Your task to perform on an android device: Go to Reddit.com Image 0: 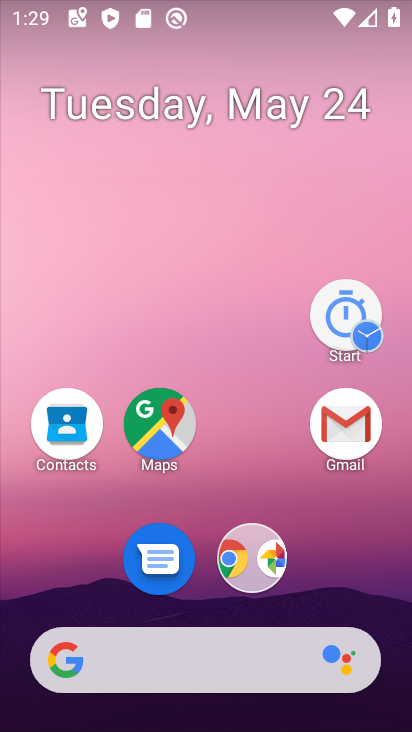
Step 0: drag from (182, 268) to (112, 125)
Your task to perform on an android device: Go to Reddit.com Image 1: 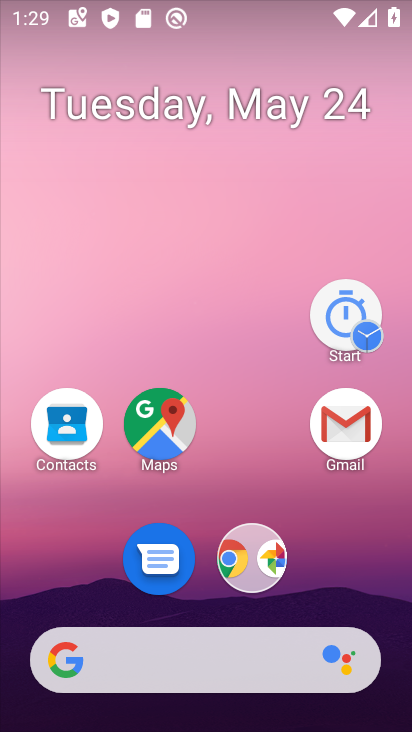
Step 1: click (165, 71)
Your task to perform on an android device: Go to Reddit.com Image 2: 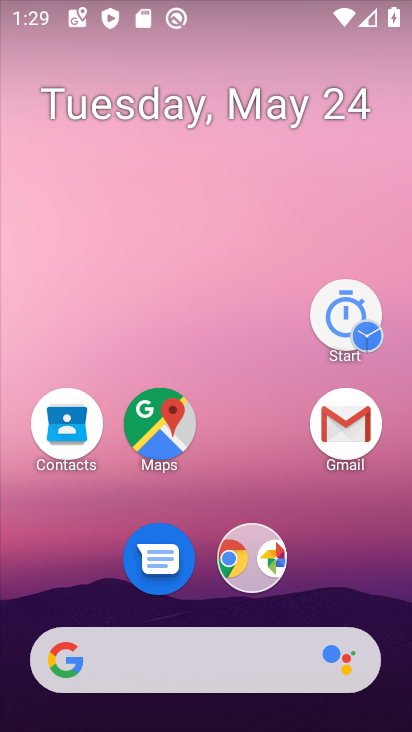
Step 2: click (224, 143)
Your task to perform on an android device: Go to Reddit.com Image 3: 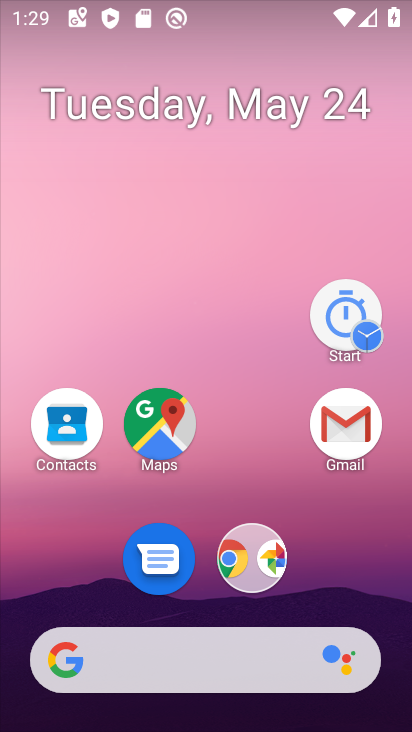
Step 3: drag from (279, 520) to (199, 53)
Your task to perform on an android device: Go to Reddit.com Image 4: 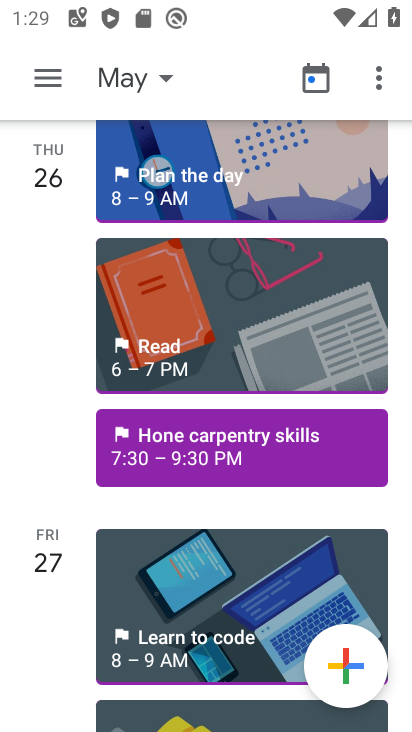
Step 4: press back button
Your task to perform on an android device: Go to Reddit.com Image 5: 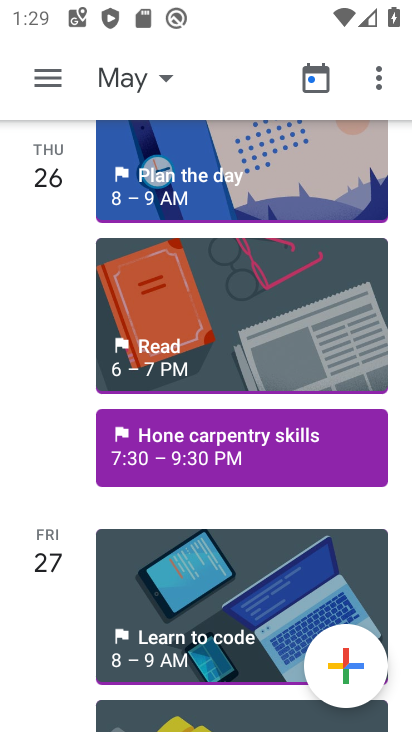
Step 5: press back button
Your task to perform on an android device: Go to Reddit.com Image 6: 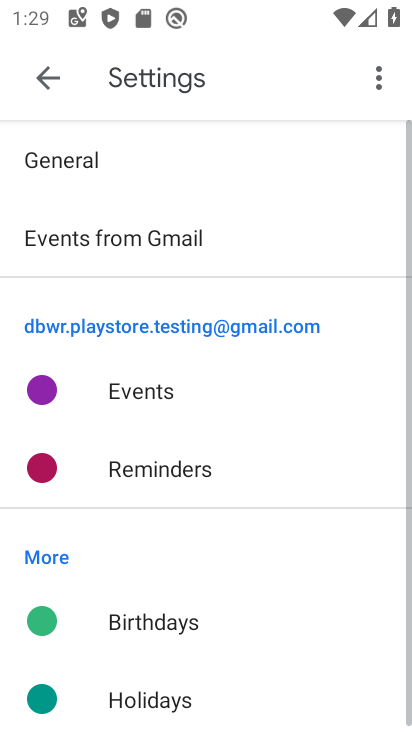
Step 6: press back button
Your task to perform on an android device: Go to Reddit.com Image 7: 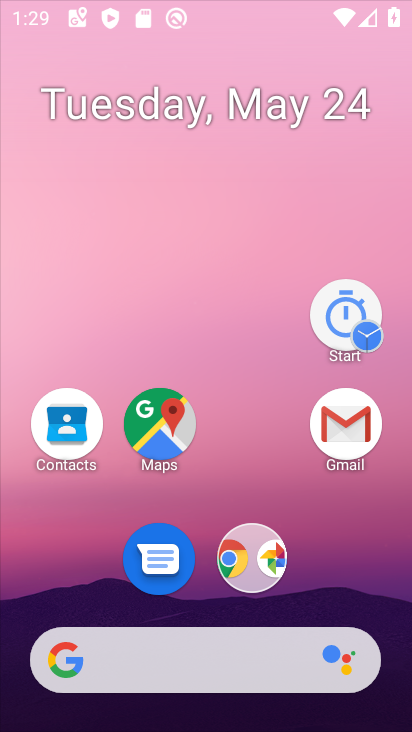
Step 7: press back button
Your task to perform on an android device: Go to Reddit.com Image 8: 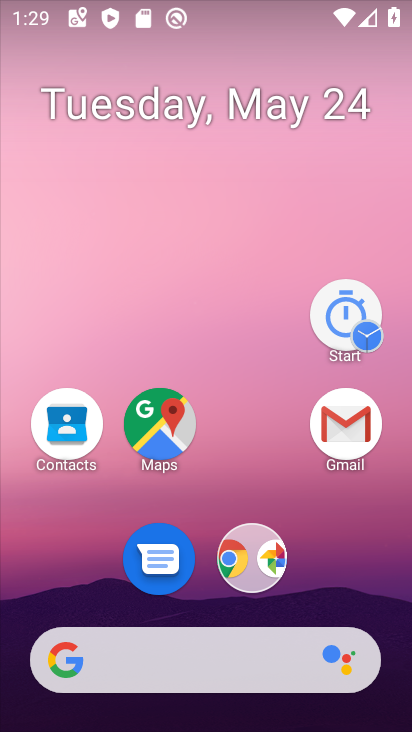
Step 8: drag from (362, 618) to (190, 143)
Your task to perform on an android device: Go to Reddit.com Image 9: 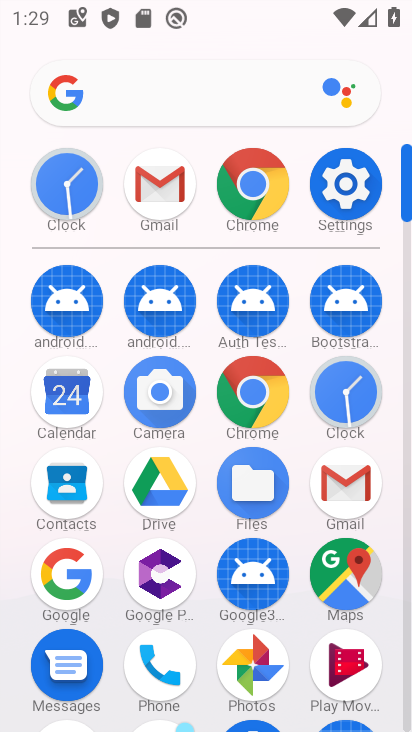
Step 9: drag from (257, 485) to (157, 187)
Your task to perform on an android device: Go to Reddit.com Image 10: 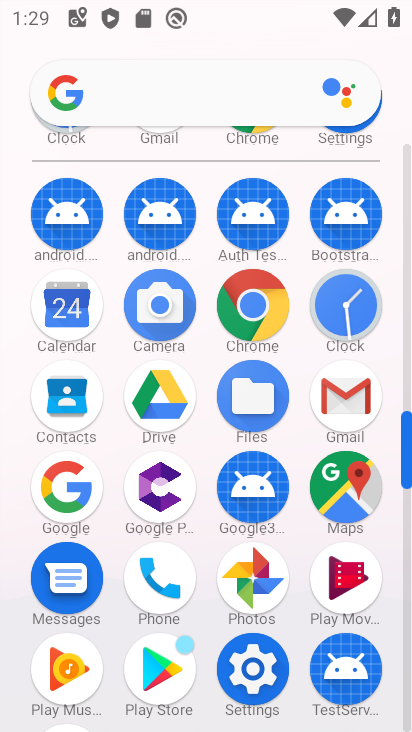
Step 10: click (240, 319)
Your task to perform on an android device: Go to Reddit.com Image 11: 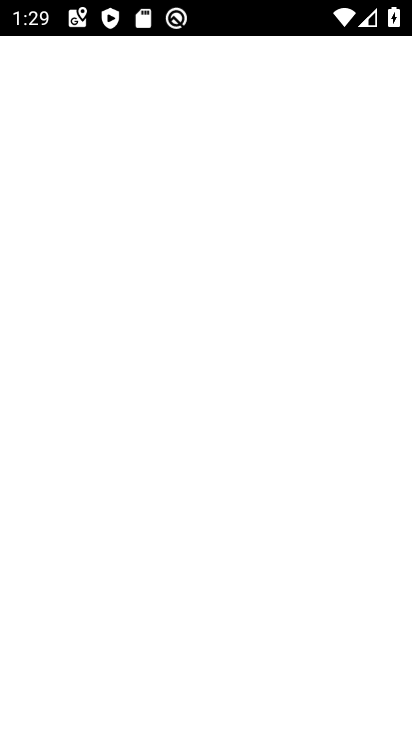
Step 11: click (244, 306)
Your task to perform on an android device: Go to Reddit.com Image 12: 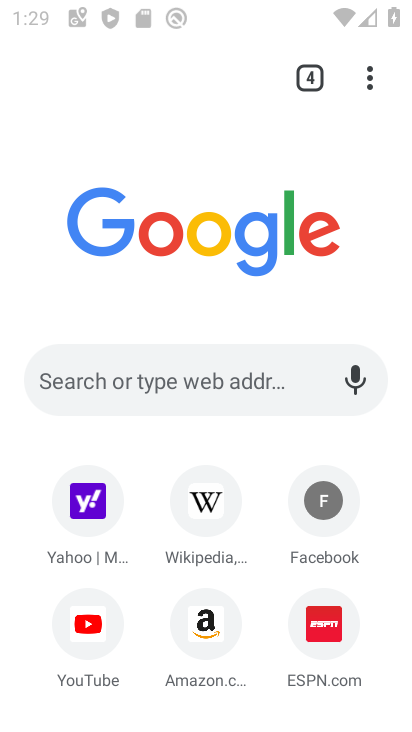
Step 12: click (244, 306)
Your task to perform on an android device: Go to Reddit.com Image 13: 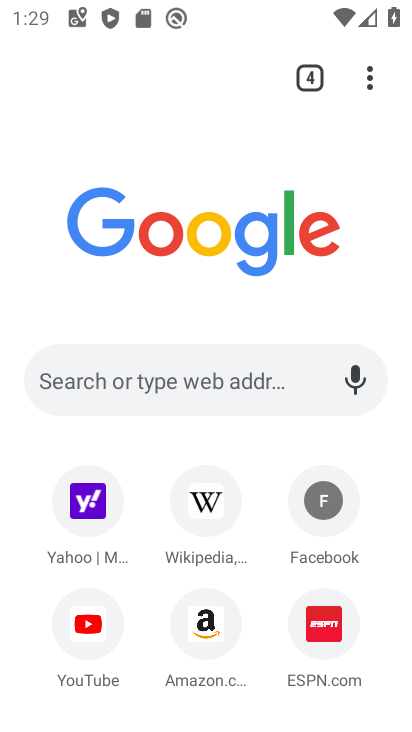
Step 13: click (247, 305)
Your task to perform on an android device: Go to Reddit.com Image 14: 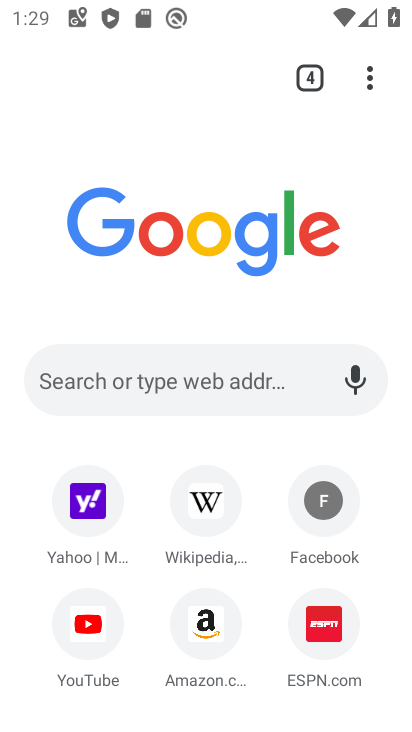
Step 14: click (247, 305)
Your task to perform on an android device: Go to Reddit.com Image 15: 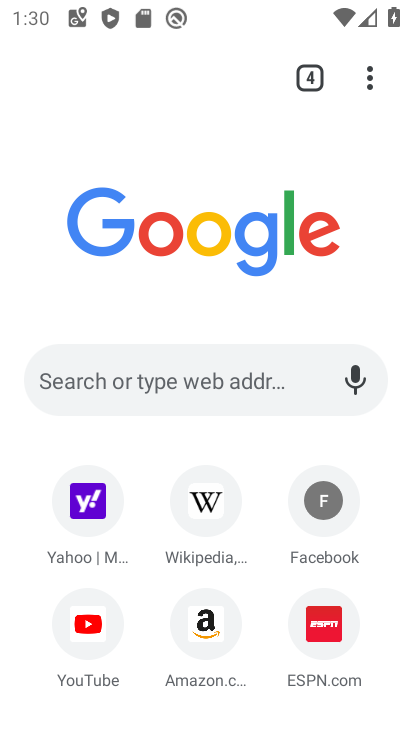
Step 15: click (82, 373)
Your task to perform on an android device: Go to Reddit.com Image 16: 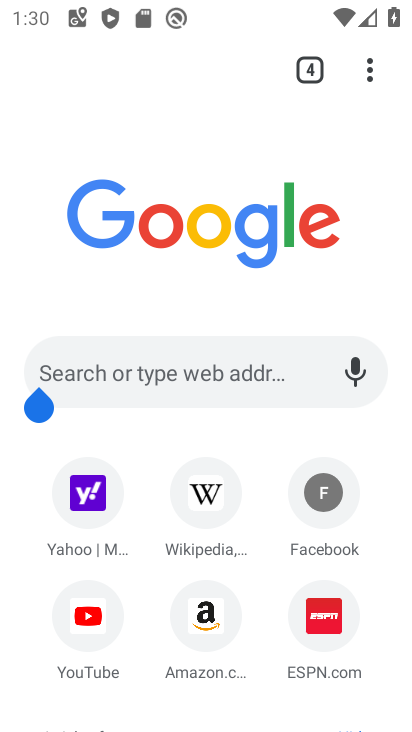
Step 16: click (83, 382)
Your task to perform on an android device: Go to Reddit.com Image 17: 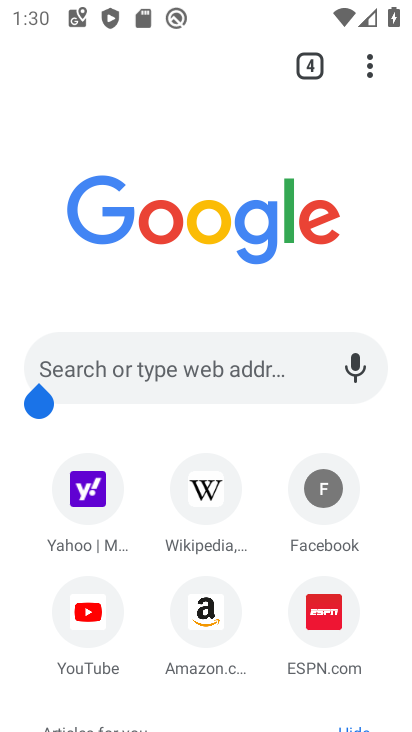
Step 17: click (80, 375)
Your task to perform on an android device: Go to Reddit.com Image 18: 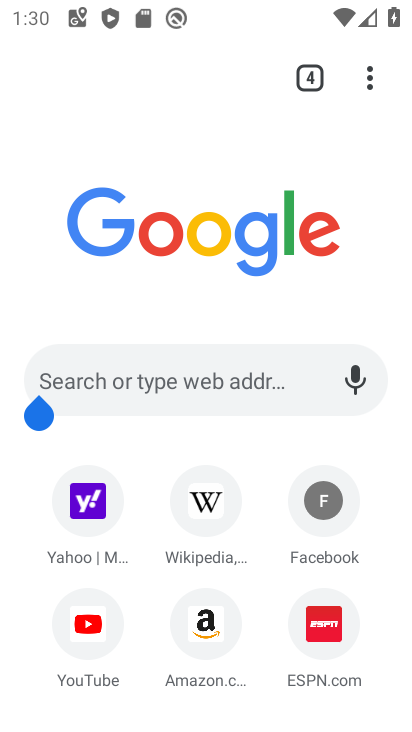
Step 18: click (55, 382)
Your task to perform on an android device: Go to Reddit.com Image 19: 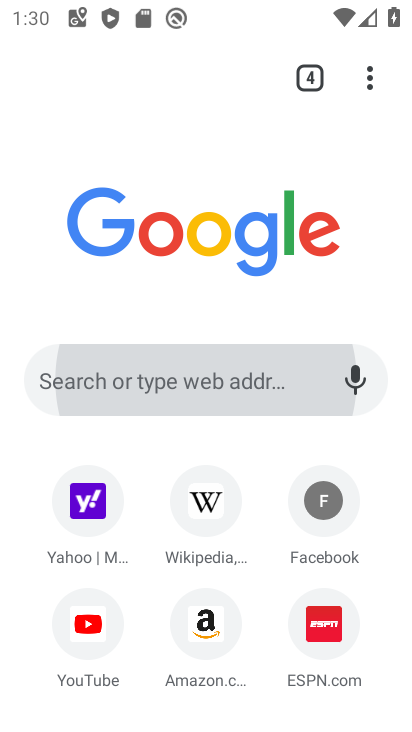
Step 19: click (56, 381)
Your task to perform on an android device: Go to Reddit.com Image 20: 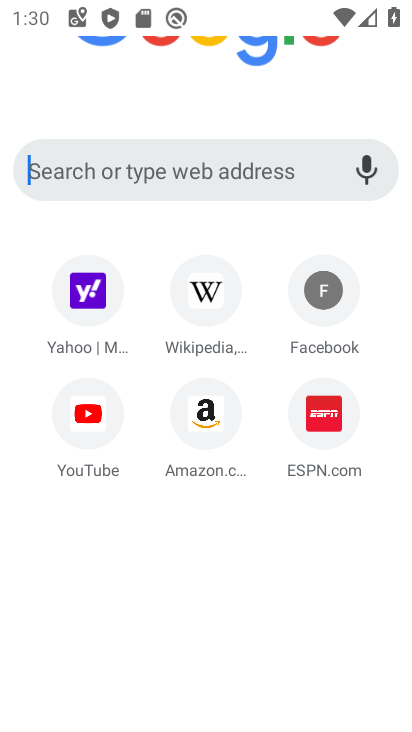
Step 20: click (57, 380)
Your task to perform on an android device: Go to Reddit.com Image 21: 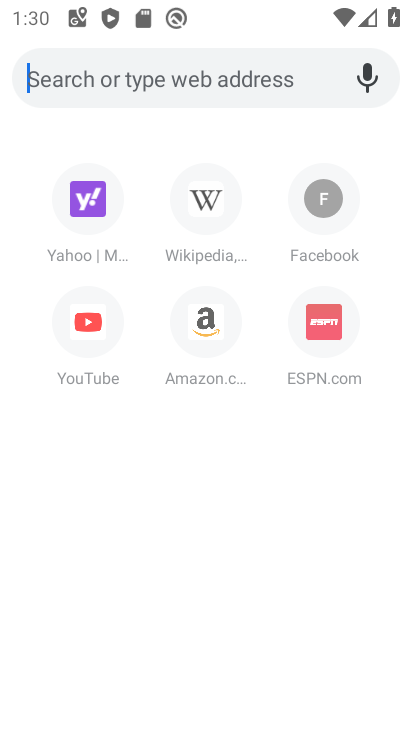
Step 21: click (58, 381)
Your task to perform on an android device: Go to Reddit.com Image 22: 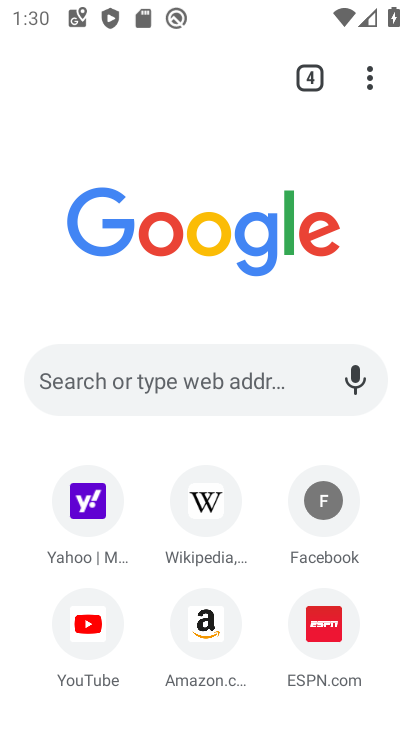
Step 22: click (58, 381)
Your task to perform on an android device: Go to Reddit.com Image 23: 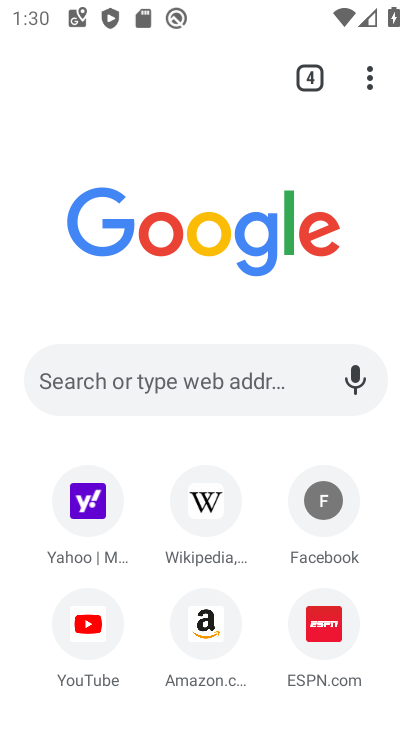
Step 23: click (58, 381)
Your task to perform on an android device: Go to Reddit.com Image 24: 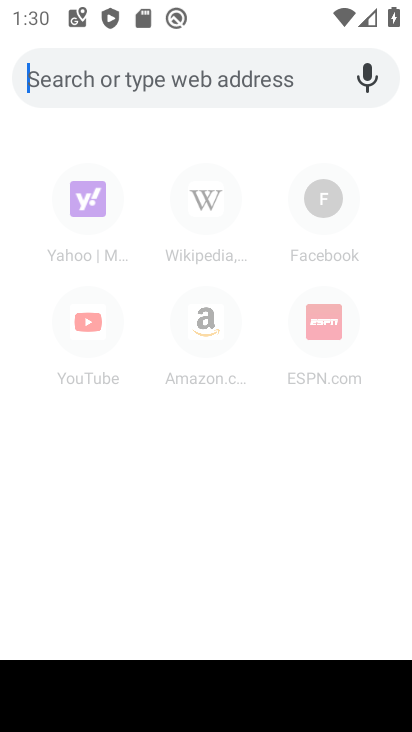
Step 24: type "reddit.com"
Your task to perform on an android device: Go to Reddit.com Image 25: 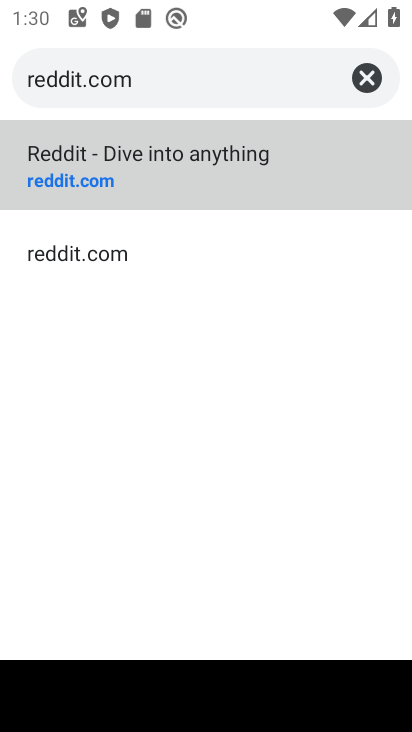
Step 25: click (66, 178)
Your task to perform on an android device: Go to Reddit.com Image 26: 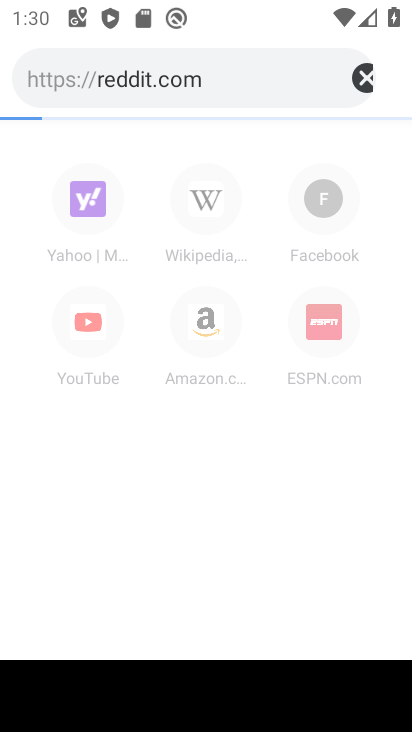
Step 26: click (66, 177)
Your task to perform on an android device: Go to Reddit.com Image 27: 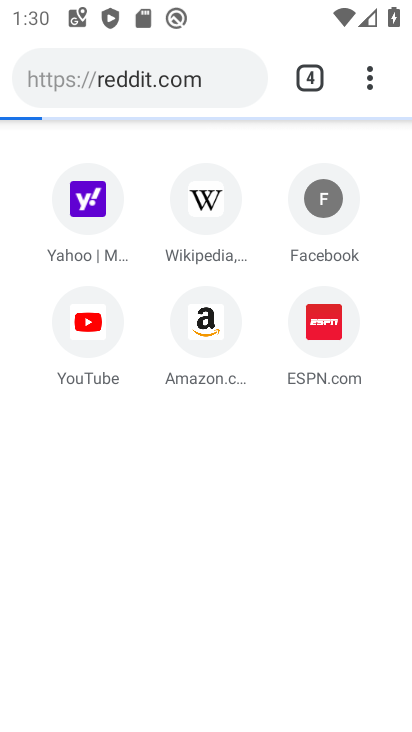
Step 27: click (66, 177)
Your task to perform on an android device: Go to Reddit.com Image 28: 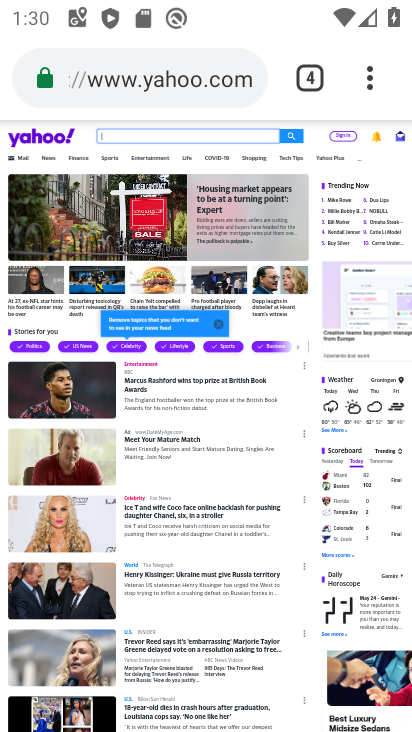
Step 28: task complete